Your task to perform on an android device: What's a good restaurant in New Jersey? Image 0: 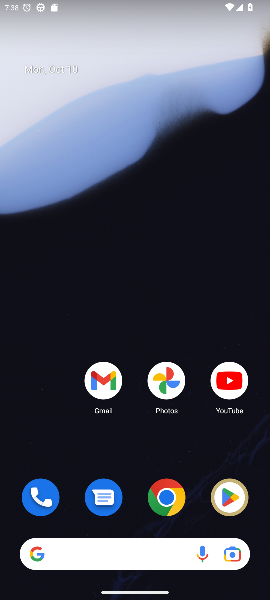
Step 0: drag from (134, 467) to (145, 205)
Your task to perform on an android device: What's a good restaurant in New Jersey? Image 1: 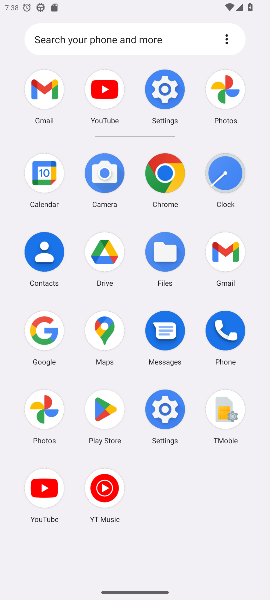
Step 1: click (42, 323)
Your task to perform on an android device: What's a good restaurant in New Jersey? Image 2: 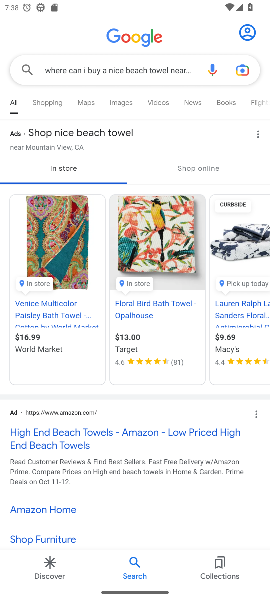
Step 2: click (164, 62)
Your task to perform on an android device: What's a good restaurant in New Jersey? Image 3: 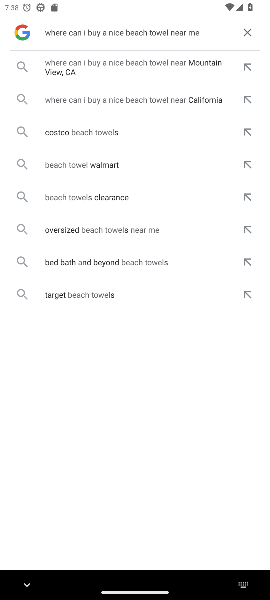
Step 3: click (255, 32)
Your task to perform on an android device: What's a good restaurant in New Jersey? Image 4: 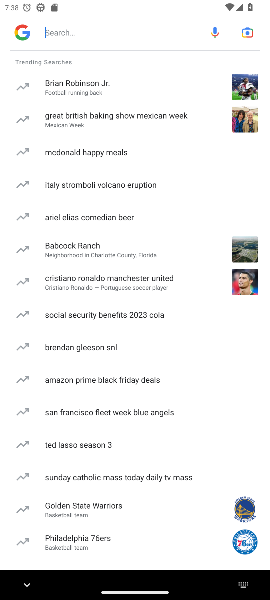
Step 4: click (58, 22)
Your task to perform on an android device: What's a good restaurant in New Jersey? Image 5: 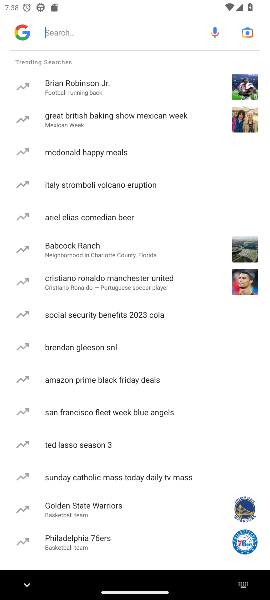
Step 5: type "What's a good restaurant in New Jersey? "
Your task to perform on an android device: What's a good restaurant in New Jersey? Image 6: 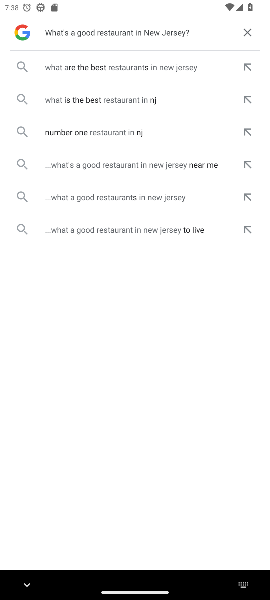
Step 6: click (119, 65)
Your task to perform on an android device: What's a good restaurant in New Jersey? Image 7: 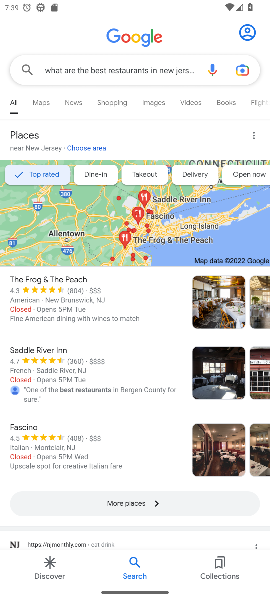
Step 7: task complete